Your task to perform on an android device: uninstall "Adobe Express: Graphic Design" Image 0: 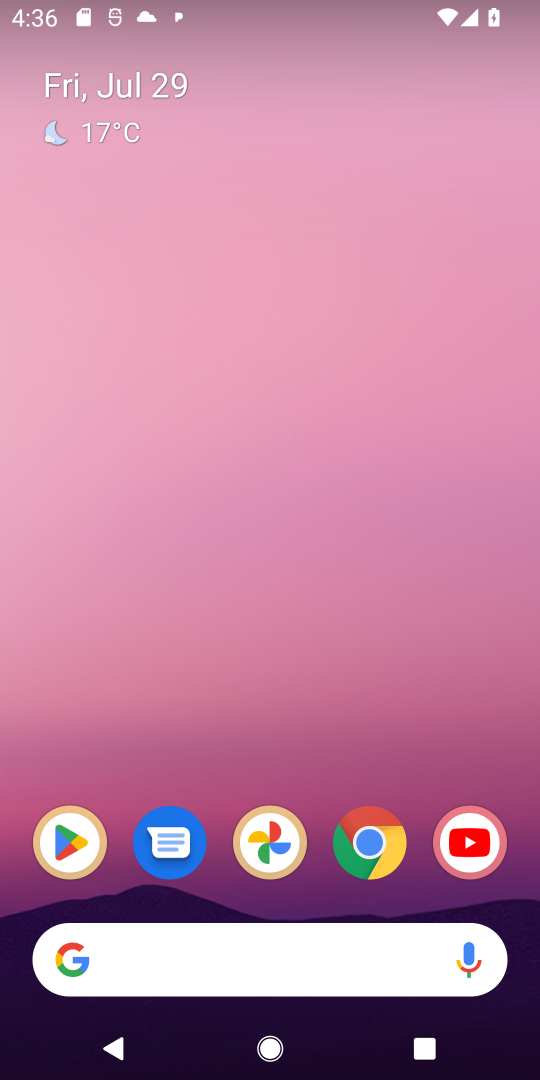
Step 0: click (78, 839)
Your task to perform on an android device: uninstall "Adobe Express: Graphic Design" Image 1: 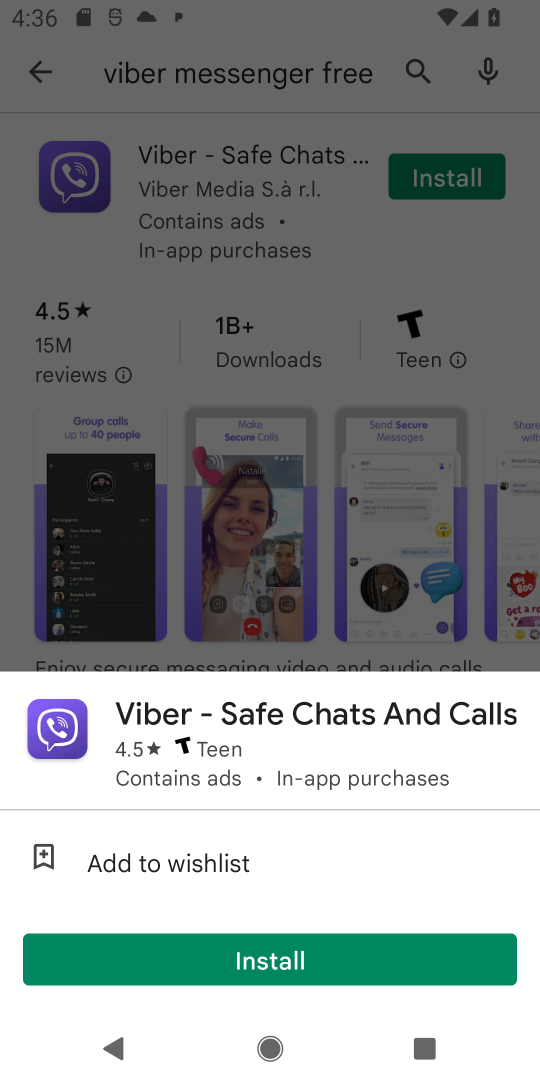
Step 1: click (258, 522)
Your task to perform on an android device: uninstall "Adobe Express: Graphic Design" Image 2: 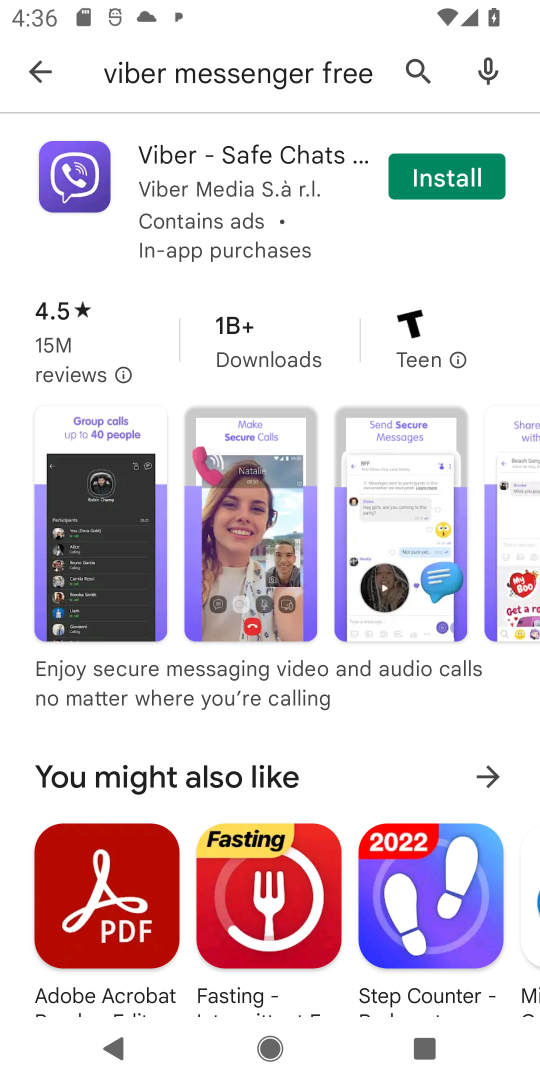
Step 2: click (423, 47)
Your task to perform on an android device: uninstall "Adobe Express: Graphic Design" Image 3: 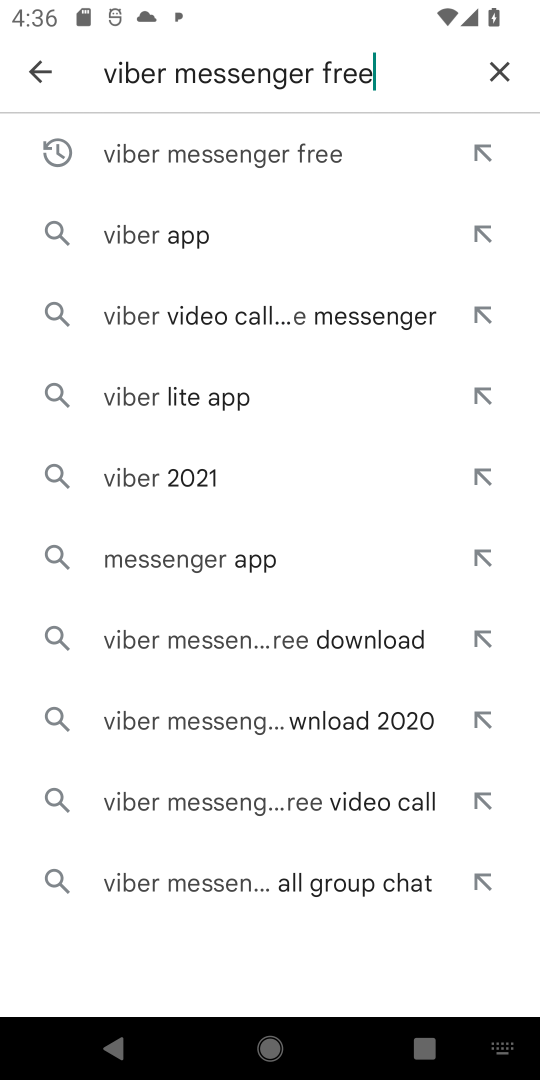
Step 3: click (496, 81)
Your task to perform on an android device: uninstall "Adobe Express: Graphic Design" Image 4: 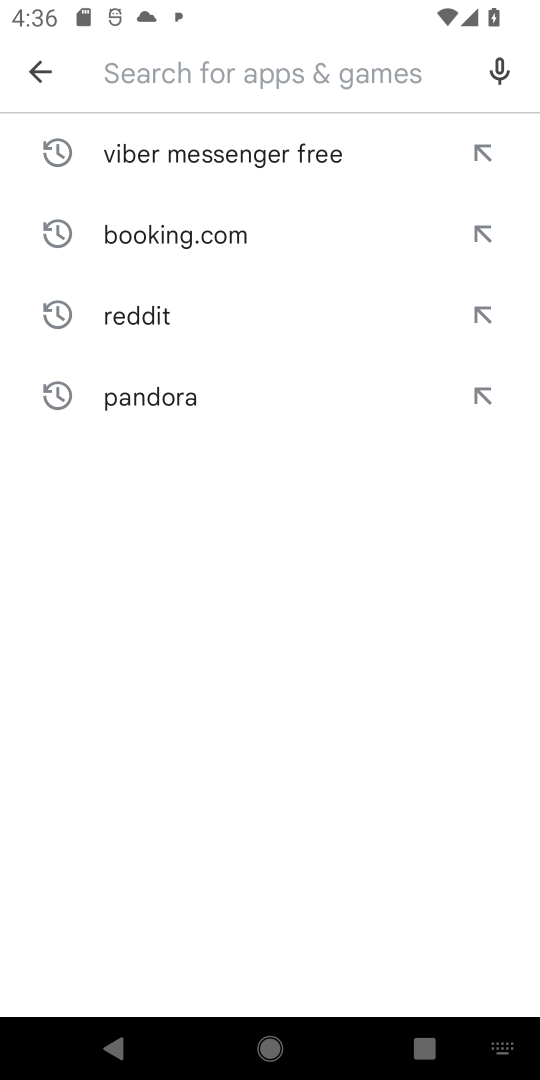
Step 4: click (223, 75)
Your task to perform on an android device: uninstall "Adobe Express: Graphic Design" Image 5: 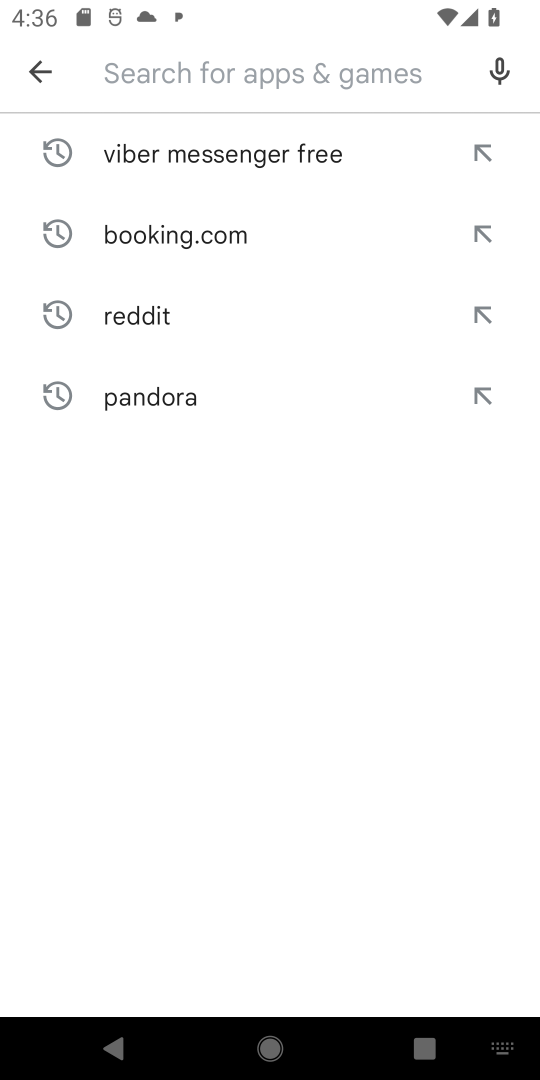
Step 5: type "adobe express"
Your task to perform on an android device: uninstall "Adobe Express: Graphic Design" Image 6: 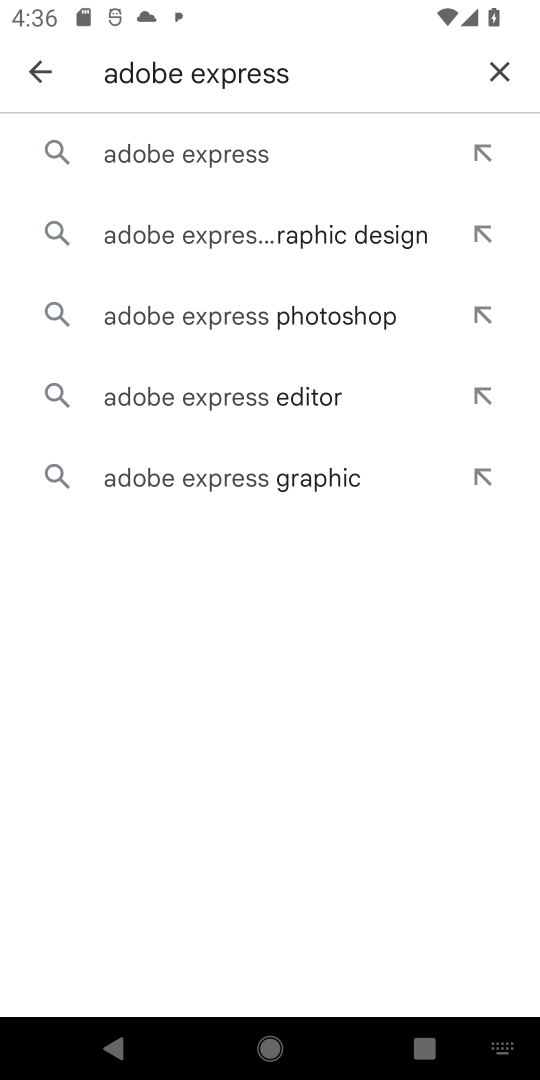
Step 6: click (211, 150)
Your task to perform on an android device: uninstall "Adobe Express: Graphic Design" Image 7: 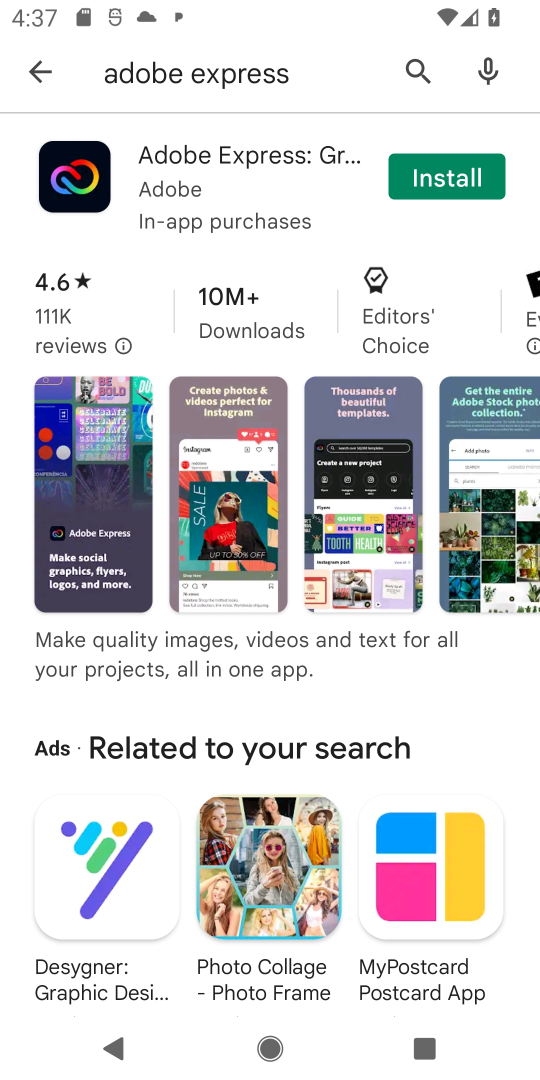
Step 7: task complete